Your task to perform on an android device: turn on data saver in the chrome app Image 0: 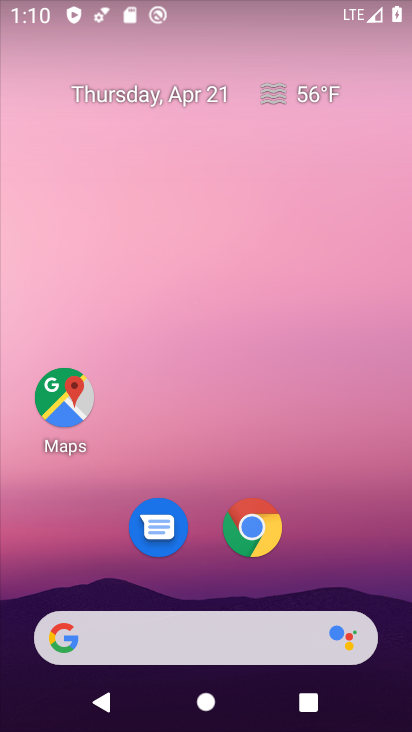
Step 0: click (268, 549)
Your task to perform on an android device: turn on data saver in the chrome app Image 1: 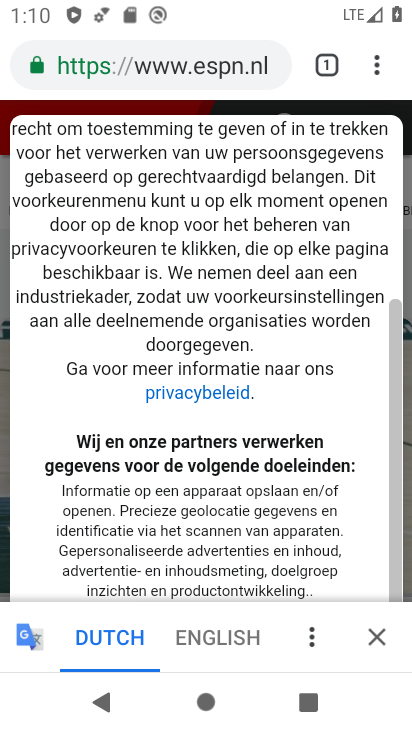
Step 1: click (378, 70)
Your task to perform on an android device: turn on data saver in the chrome app Image 2: 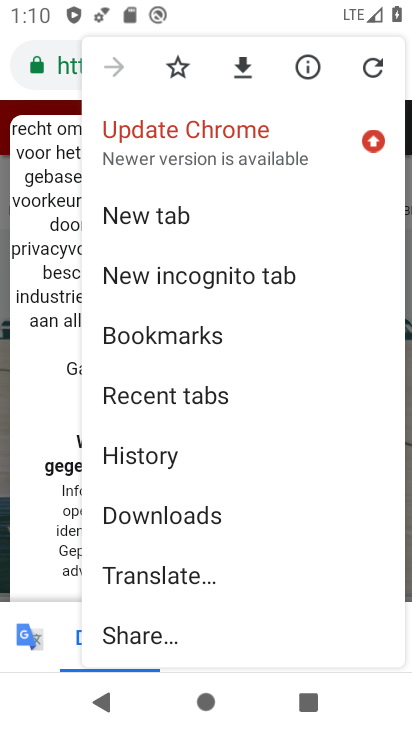
Step 2: drag from (167, 609) to (190, 359)
Your task to perform on an android device: turn on data saver in the chrome app Image 3: 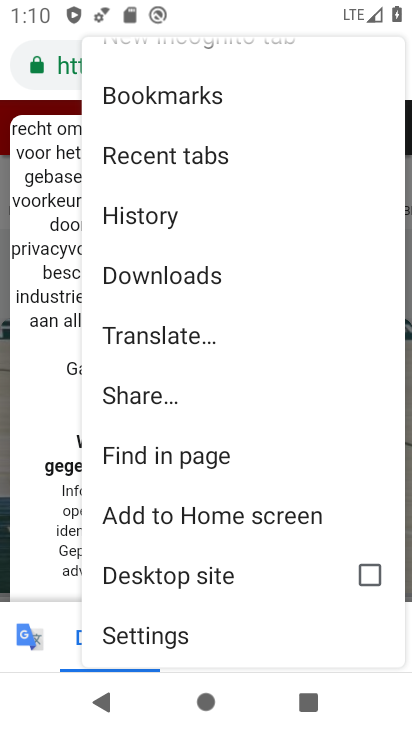
Step 3: click (160, 631)
Your task to perform on an android device: turn on data saver in the chrome app Image 4: 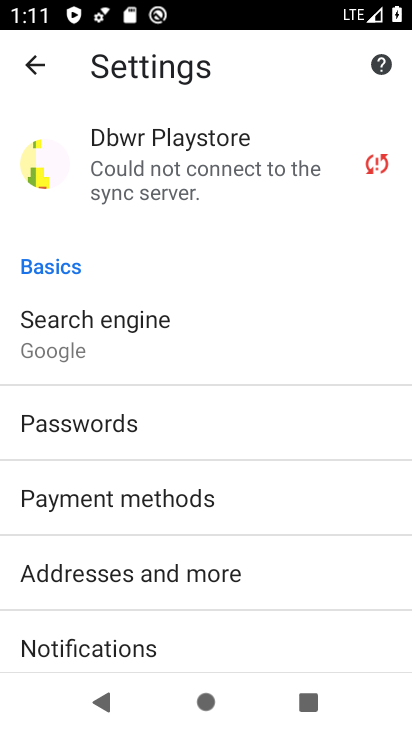
Step 4: drag from (148, 628) to (184, 345)
Your task to perform on an android device: turn on data saver in the chrome app Image 5: 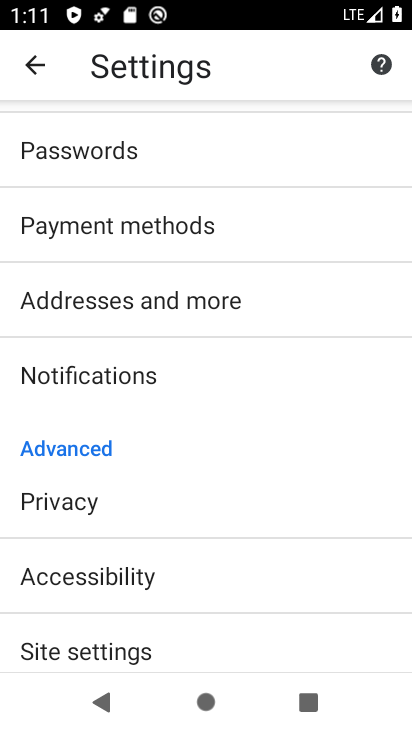
Step 5: drag from (127, 599) to (160, 360)
Your task to perform on an android device: turn on data saver in the chrome app Image 6: 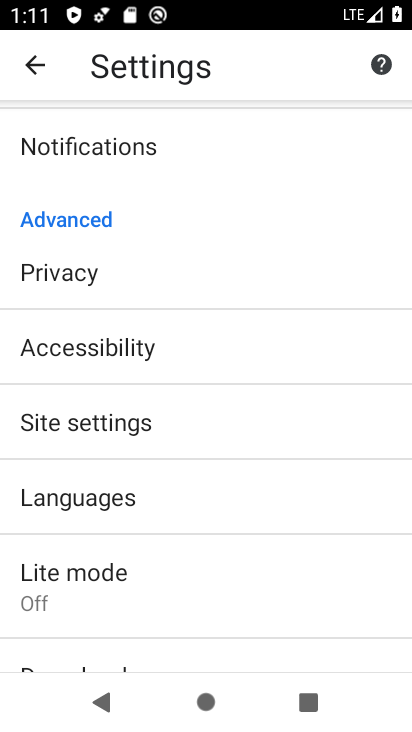
Step 6: click (83, 593)
Your task to perform on an android device: turn on data saver in the chrome app Image 7: 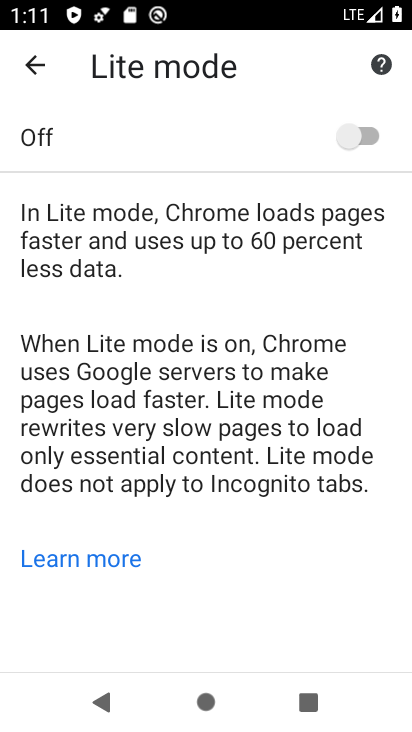
Step 7: click (360, 144)
Your task to perform on an android device: turn on data saver in the chrome app Image 8: 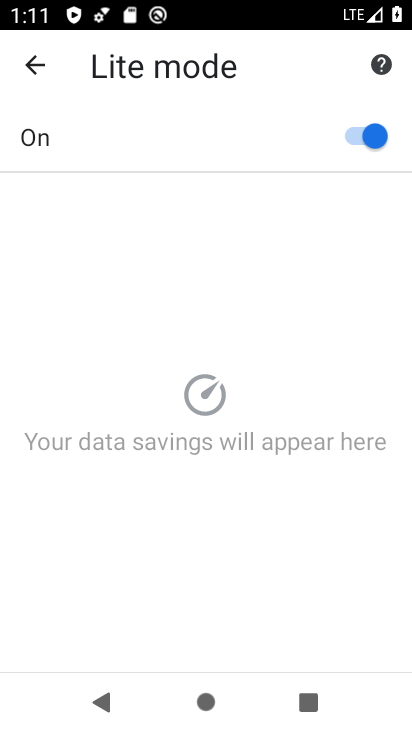
Step 8: task complete